Your task to perform on an android device: turn off picture-in-picture Image 0: 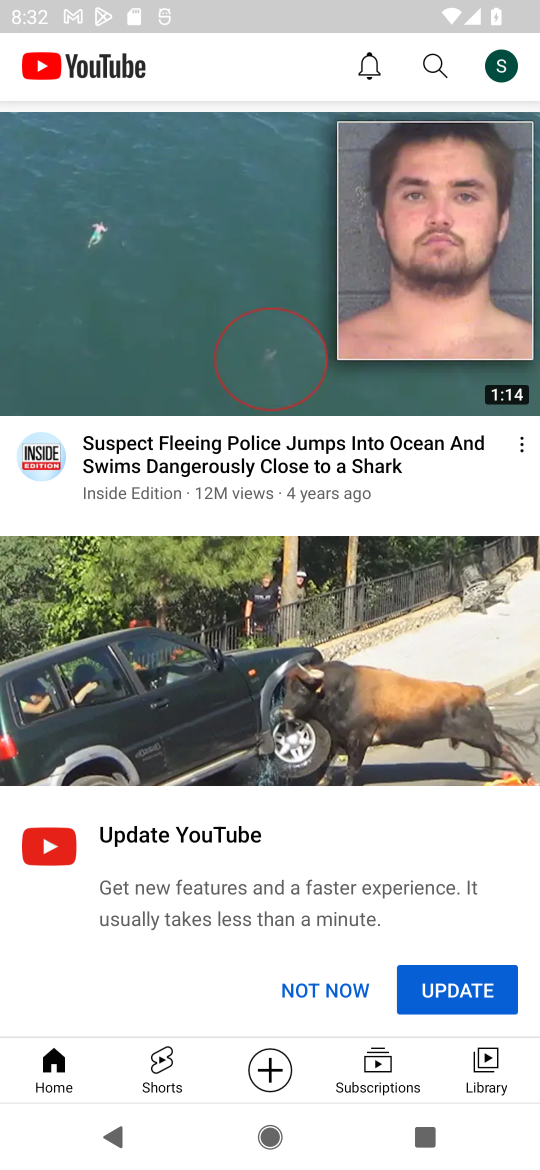
Step 0: press home button
Your task to perform on an android device: turn off picture-in-picture Image 1: 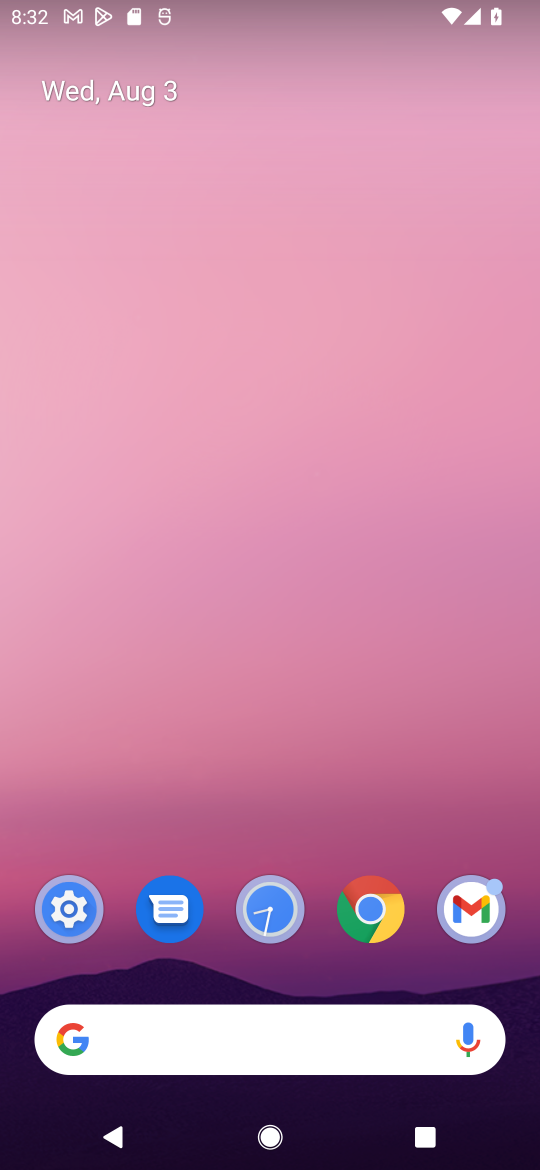
Step 1: drag from (306, 856) to (352, 381)
Your task to perform on an android device: turn off picture-in-picture Image 2: 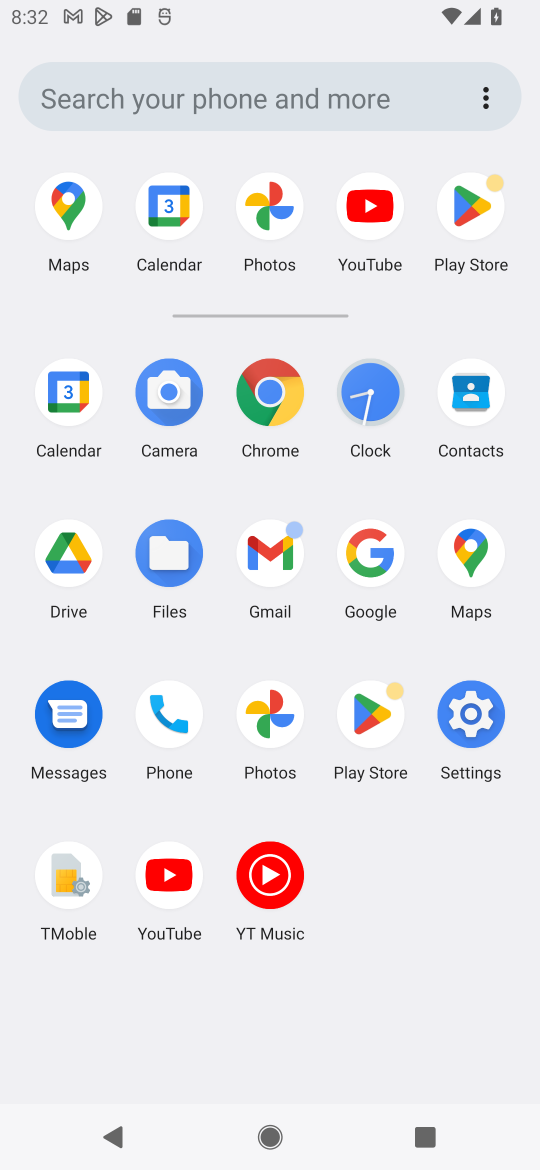
Step 2: click (465, 719)
Your task to perform on an android device: turn off picture-in-picture Image 3: 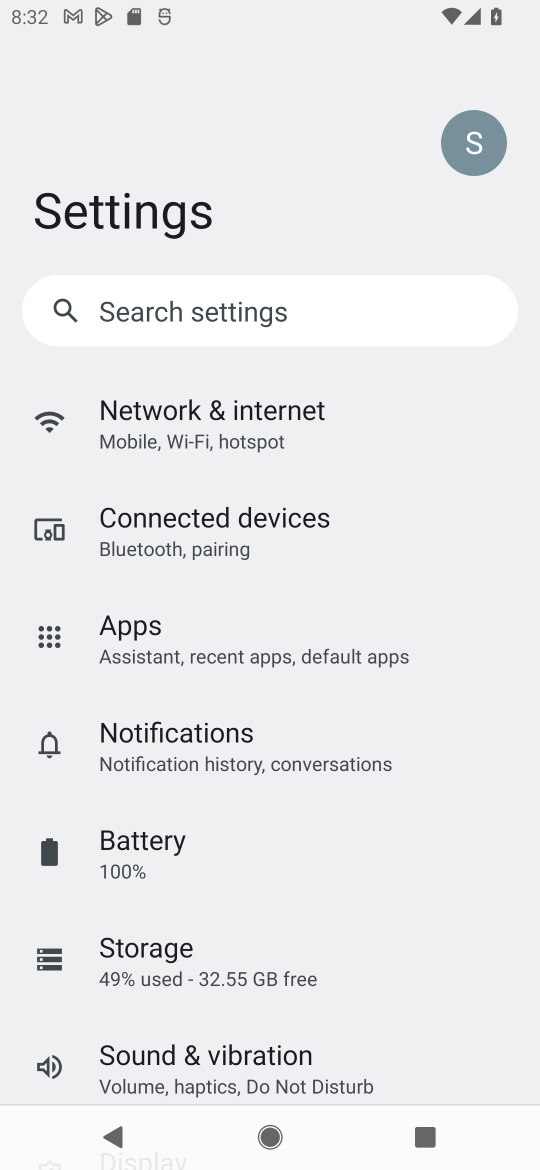
Step 3: drag from (456, 875) to (465, 742)
Your task to perform on an android device: turn off picture-in-picture Image 4: 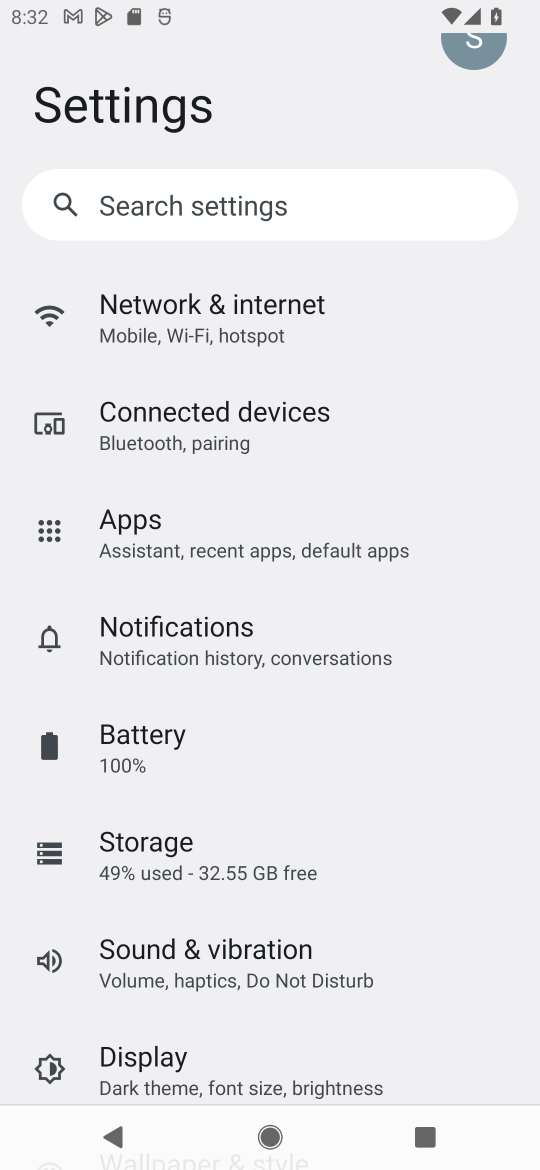
Step 4: drag from (429, 969) to (430, 779)
Your task to perform on an android device: turn off picture-in-picture Image 5: 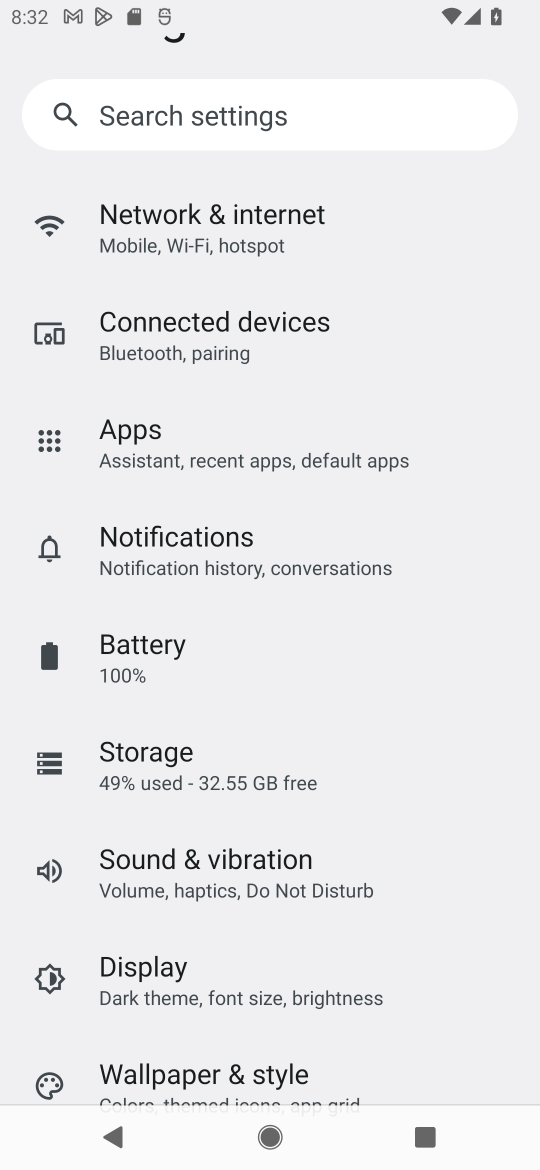
Step 5: drag from (433, 977) to (446, 808)
Your task to perform on an android device: turn off picture-in-picture Image 6: 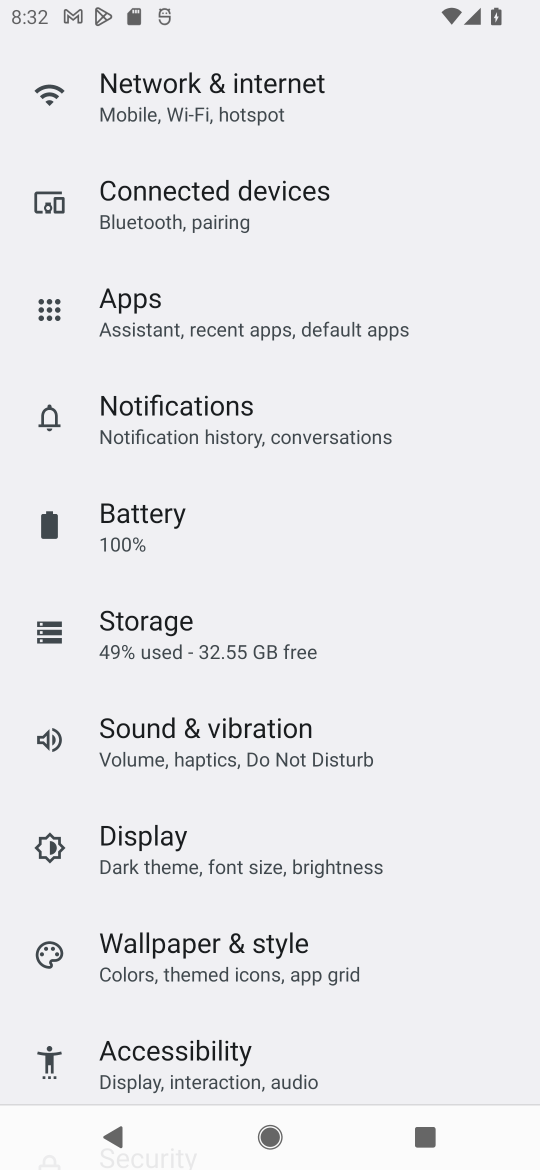
Step 6: drag from (443, 981) to (446, 800)
Your task to perform on an android device: turn off picture-in-picture Image 7: 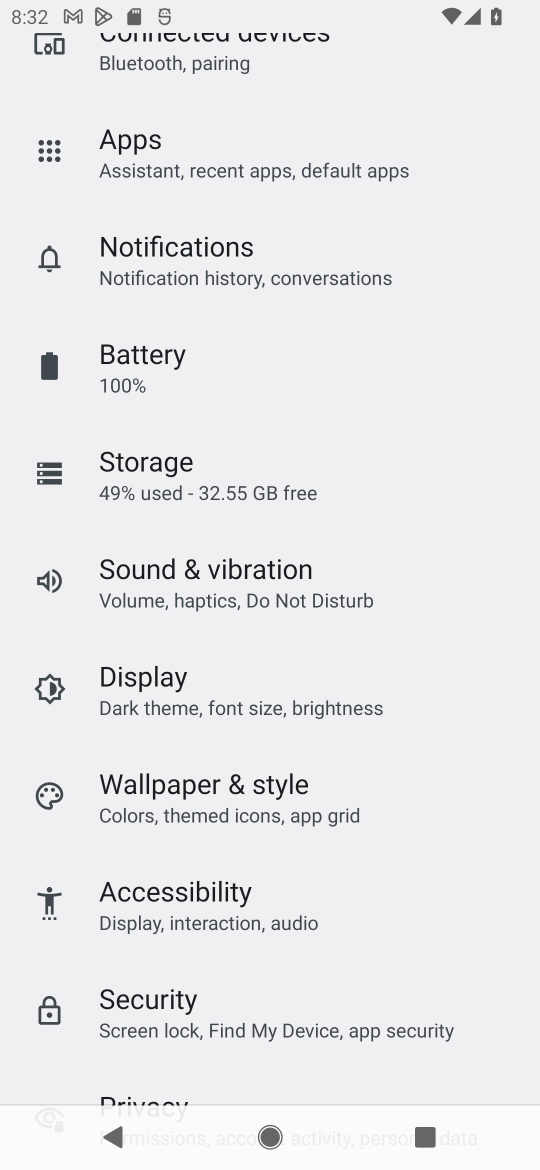
Step 7: drag from (448, 985) to (448, 780)
Your task to perform on an android device: turn off picture-in-picture Image 8: 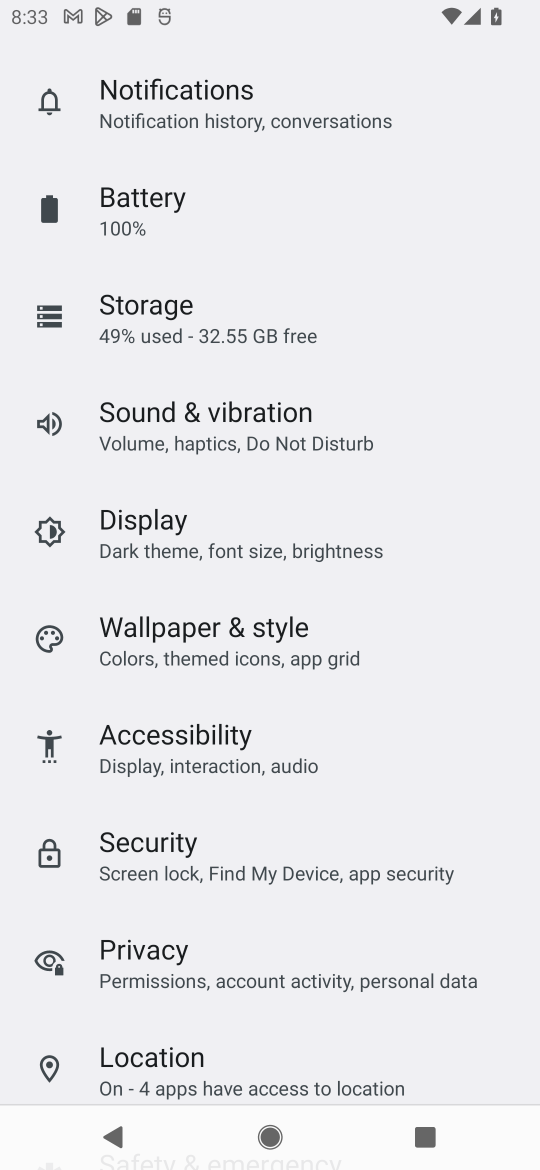
Step 8: drag from (457, 1047) to (459, 883)
Your task to perform on an android device: turn off picture-in-picture Image 9: 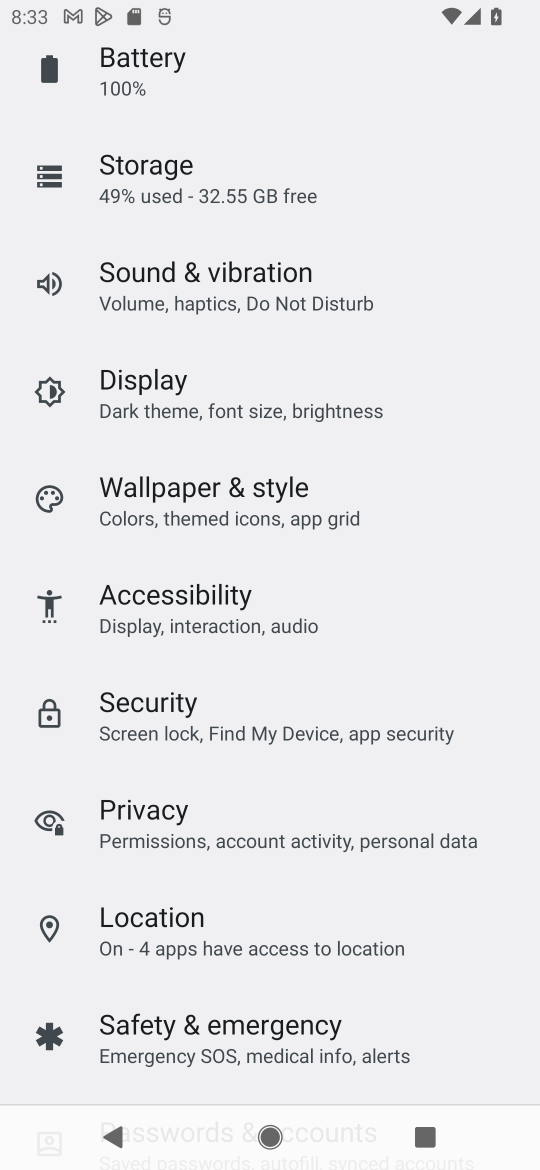
Step 9: drag from (487, 1071) to (474, 857)
Your task to perform on an android device: turn off picture-in-picture Image 10: 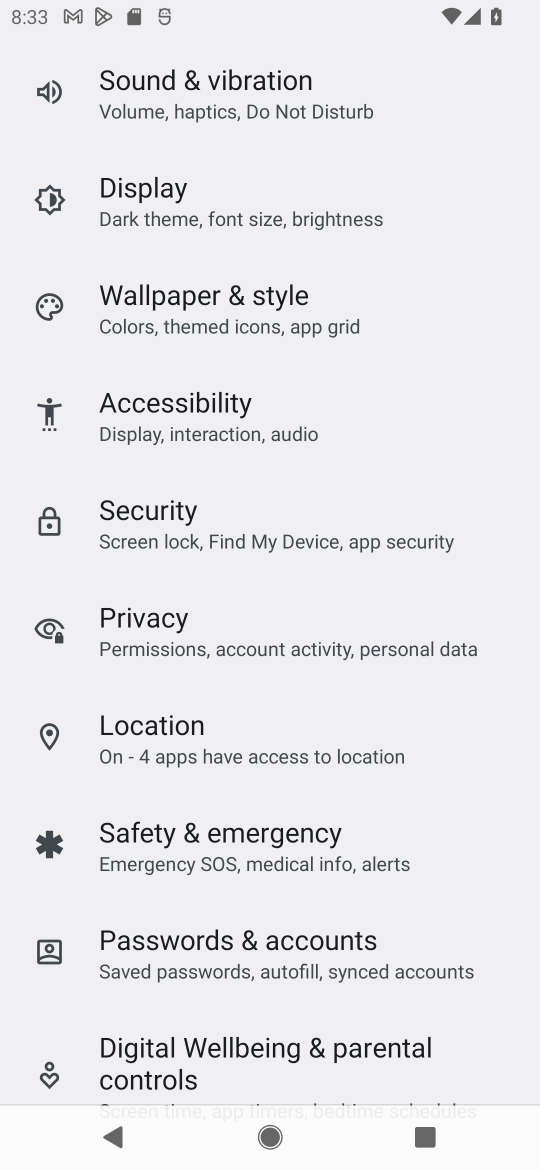
Step 10: drag from (458, 1060) to (468, 821)
Your task to perform on an android device: turn off picture-in-picture Image 11: 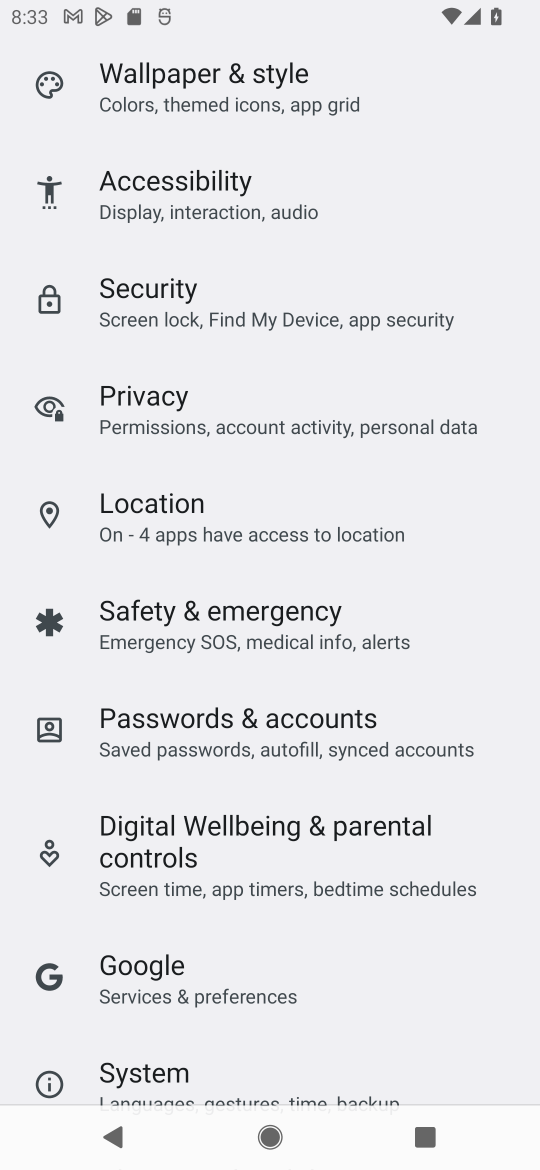
Step 11: drag from (484, 673) to (489, 834)
Your task to perform on an android device: turn off picture-in-picture Image 12: 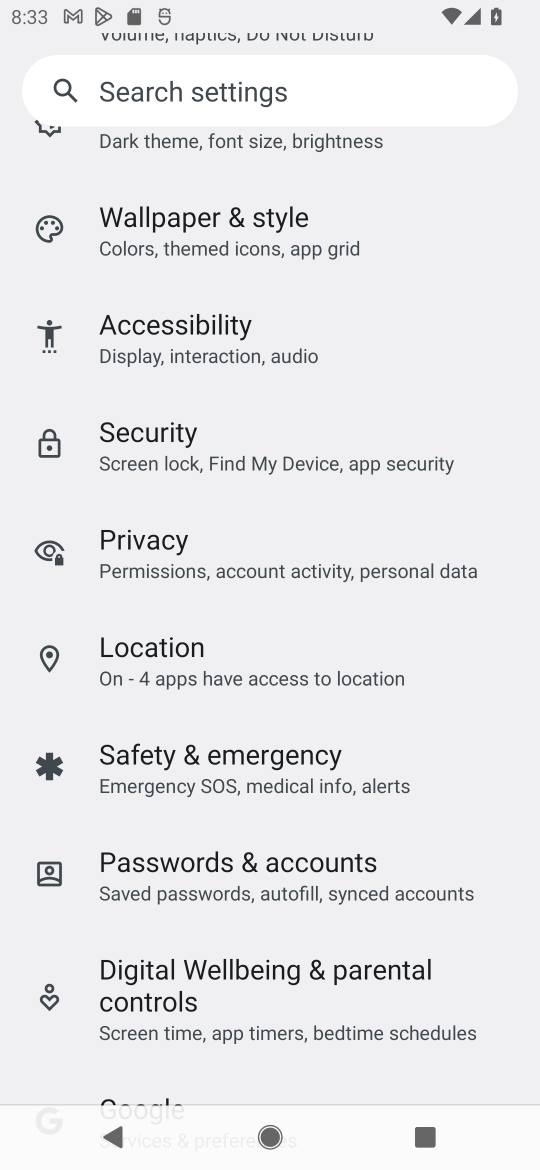
Step 12: drag from (483, 625) to (473, 812)
Your task to perform on an android device: turn off picture-in-picture Image 13: 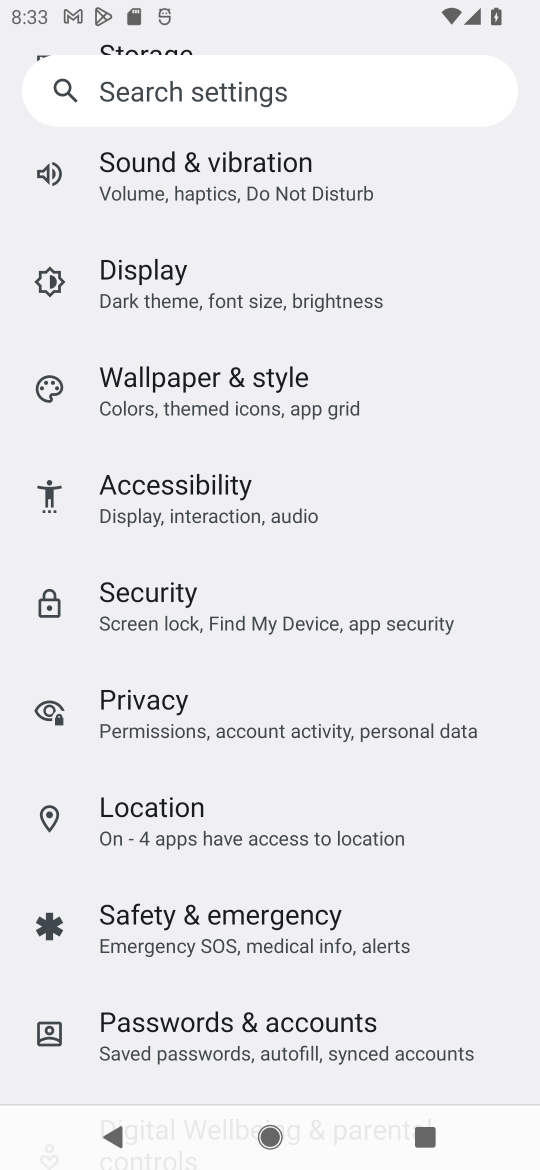
Step 13: drag from (464, 507) to (459, 764)
Your task to perform on an android device: turn off picture-in-picture Image 14: 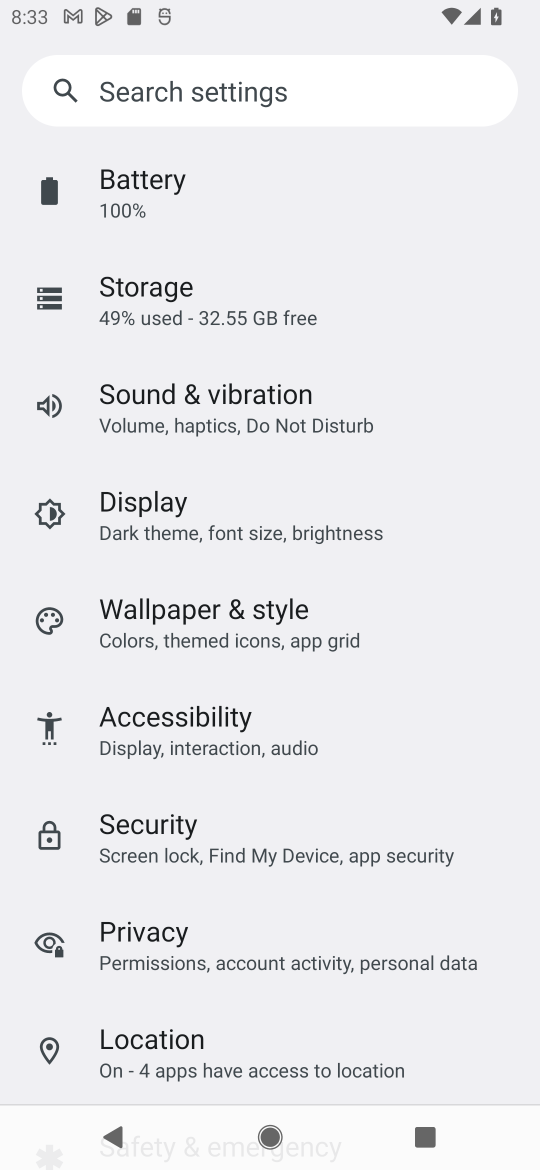
Step 14: drag from (459, 535) to (441, 778)
Your task to perform on an android device: turn off picture-in-picture Image 15: 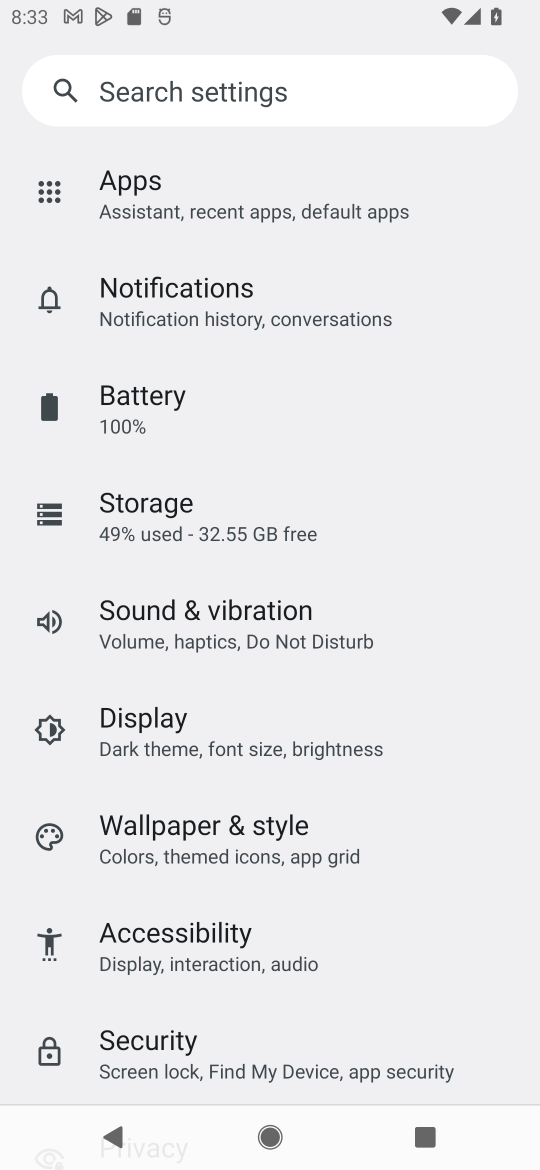
Step 15: drag from (440, 524) to (437, 798)
Your task to perform on an android device: turn off picture-in-picture Image 16: 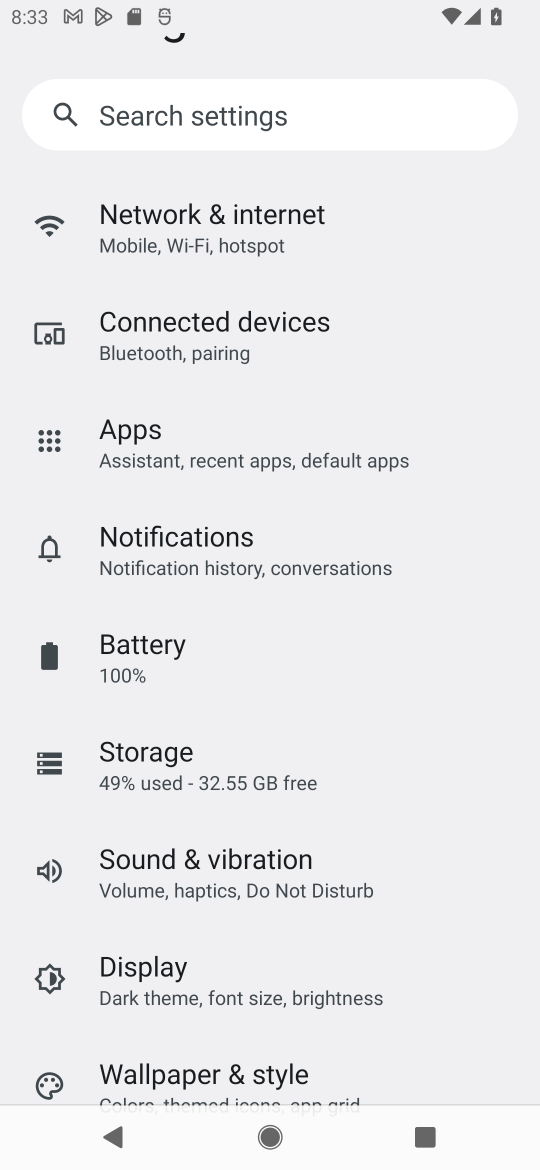
Step 16: click (403, 452)
Your task to perform on an android device: turn off picture-in-picture Image 17: 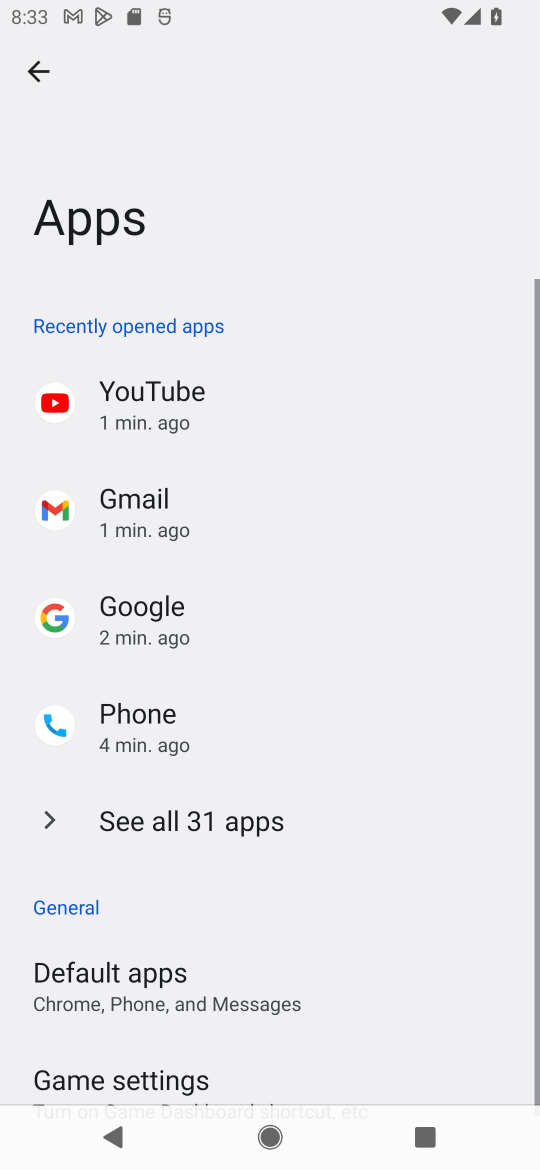
Step 17: drag from (387, 863) to (395, 727)
Your task to perform on an android device: turn off picture-in-picture Image 18: 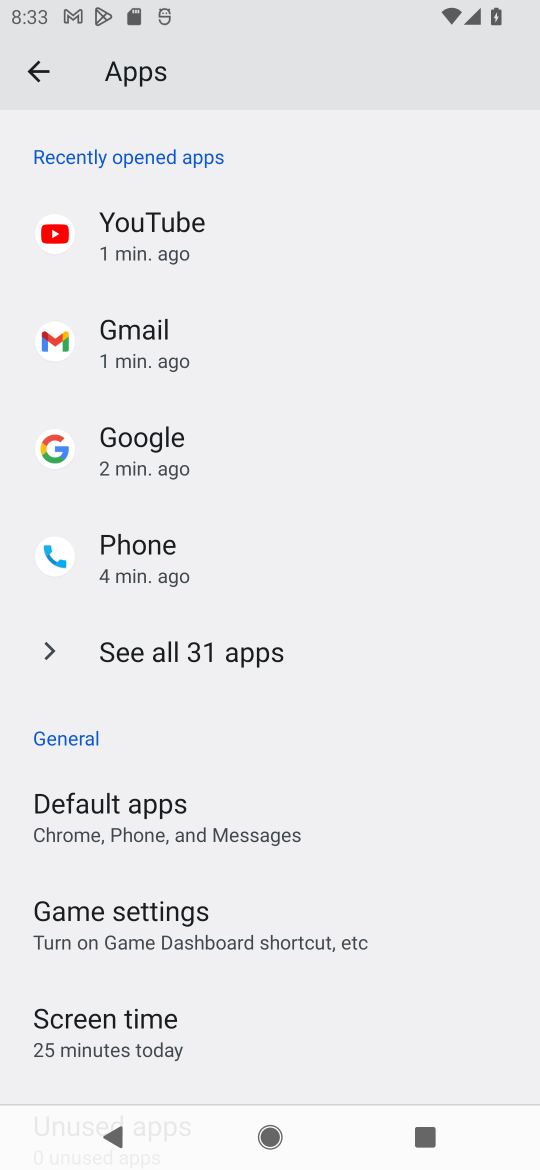
Step 18: drag from (377, 969) to (405, 692)
Your task to perform on an android device: turn off picture-in-picture Image 19: 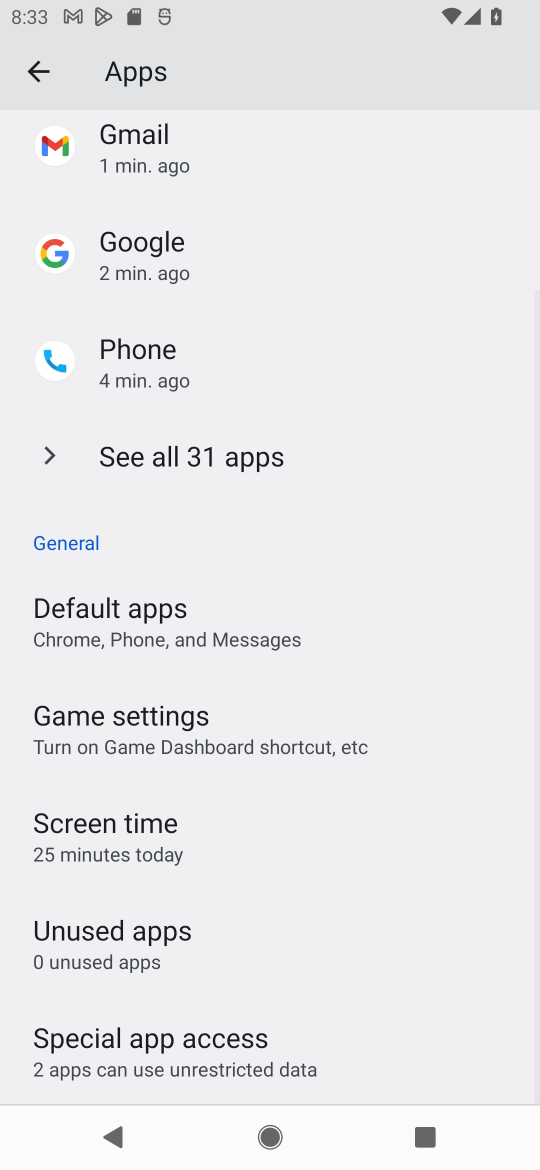
Step 19: click (341, 1056)
Your task to perform on an android device: turn off picture-in-picture Image 20: 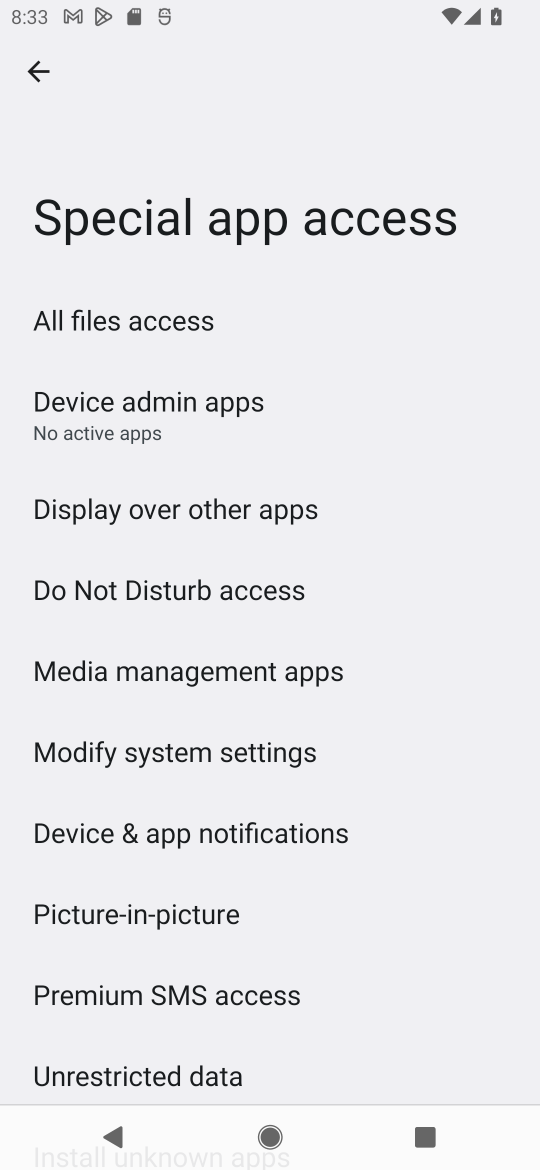
Step 20: click (275, 924)
Your task to perform on an android device: turn off picture-in-picture Image 21: 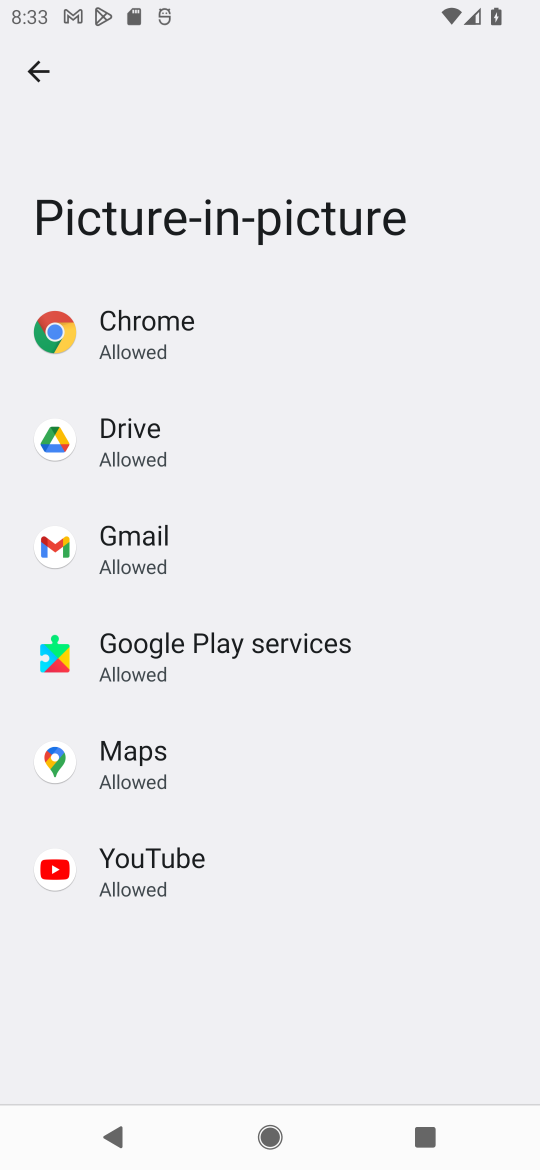
Step 21: click (228, 870)
Your task to perform on an android device: turn off picture-in-picture Image 22: 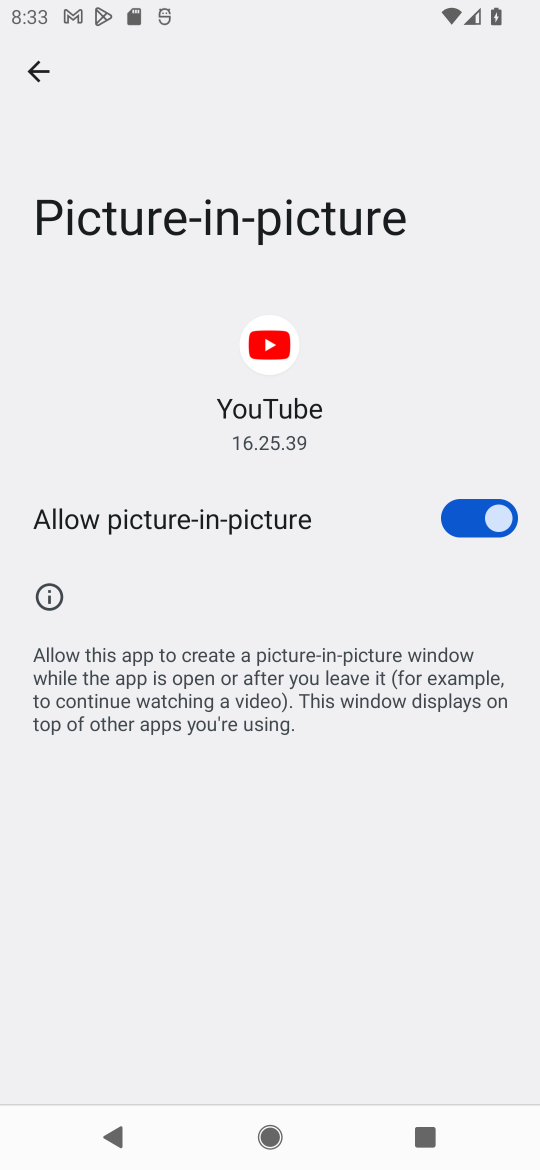
Step 22: click (471, 506)
Your task to perform on an android device: turn off picture-in-picture Image 23: 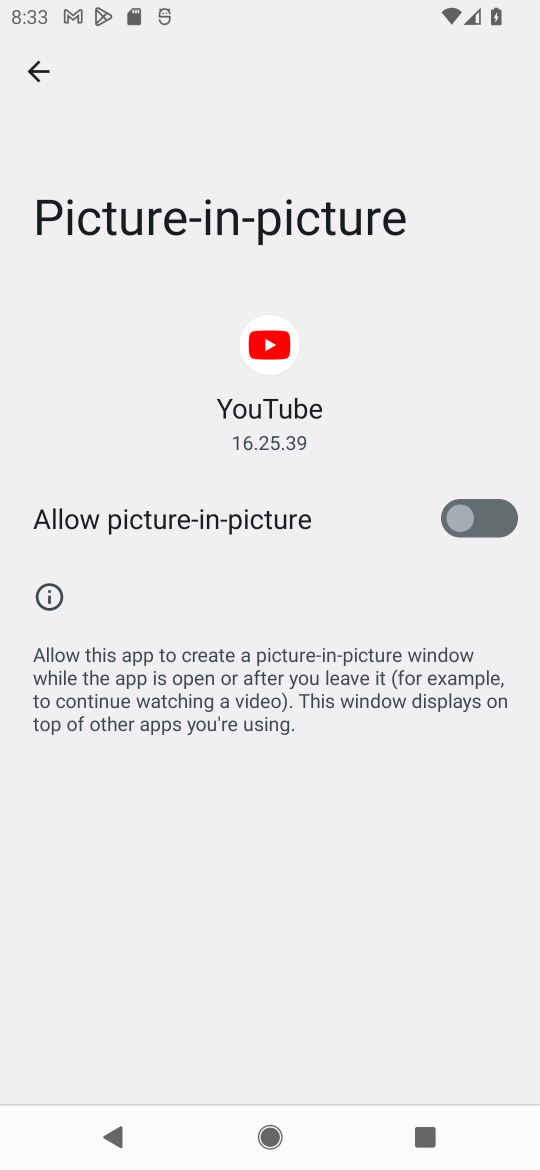
Step 23: task complete